Your task to perform on an android device: Go to display settings Image 0: 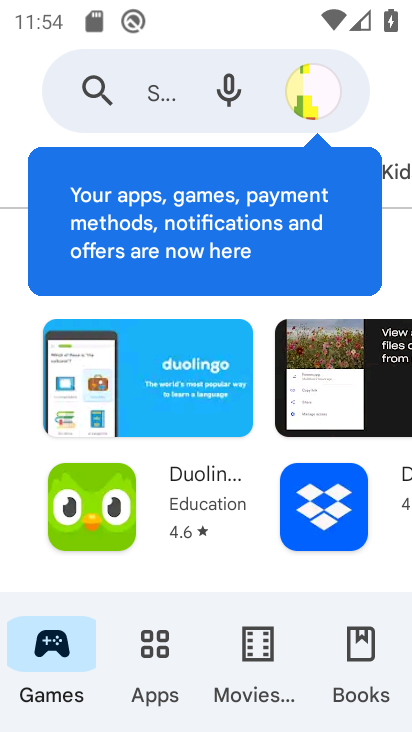
Step 0: press home button
Your task to perform on an android device: Go to display settings Image 1: 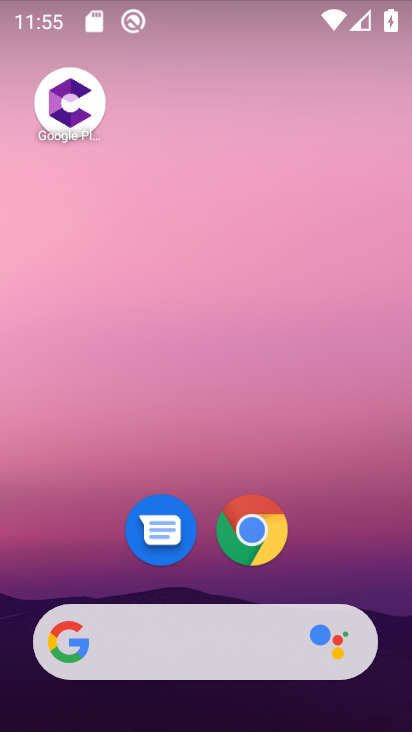
Step 1: drag from (205, 562) to (262, 113)
Your task to perform on an android device: Go to display settings Image 2: 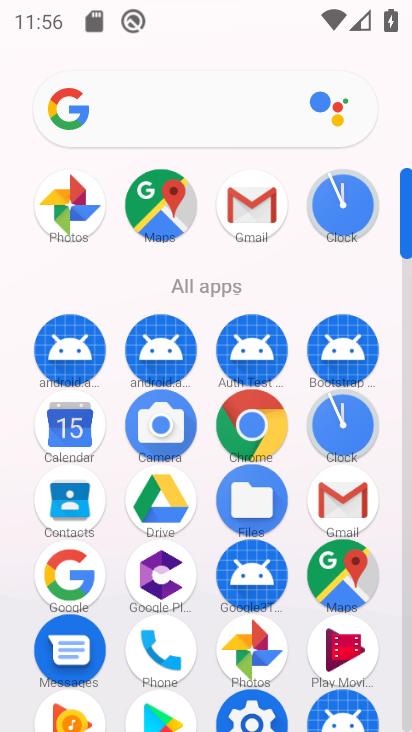
Step 2: click (274, 711)
Your task to perform on an android device: Go to display settings Image 3: 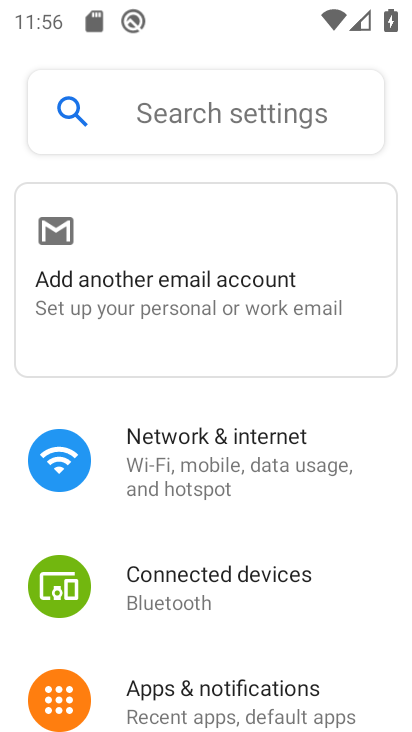
Step 3: drag from (274, 711) to (230, 387)
Your task to perform on an android device: Go to display settings Image 4: 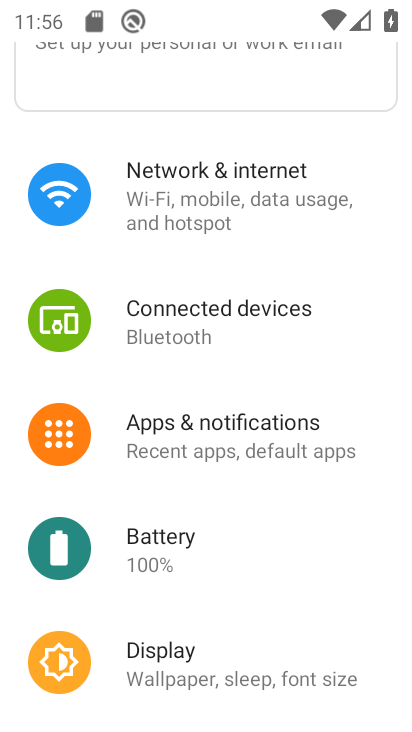
Step 4: drag from (106, 585) to (251, 46)
Your task to perform on an android device: Go to display settings Image 5: 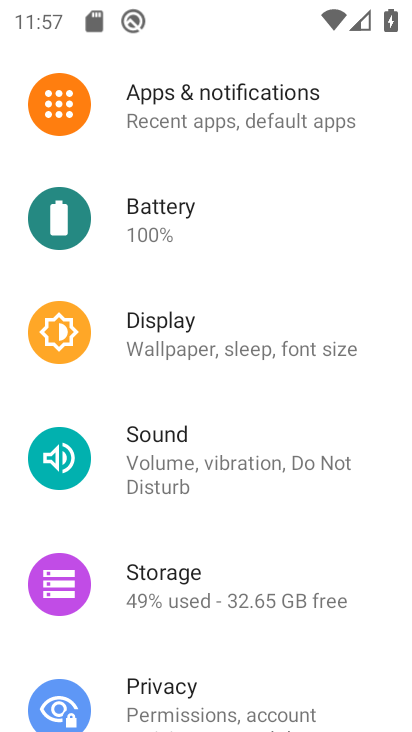
Step 5: click (177, 360)
Your task to perform on an android device: Go to display settings Image 6: 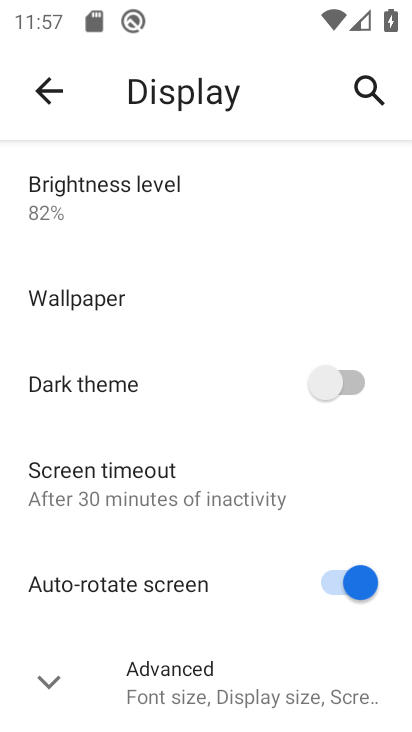
Step 6: task complete